Your task to perform on an android device: turn on sleep mode Image 0: 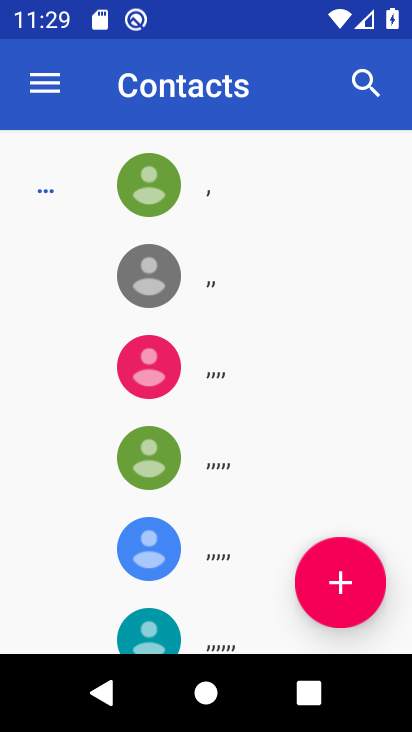
Step 0: press home button
Your task to perform on an android device: turn on sleep mode Image 1: 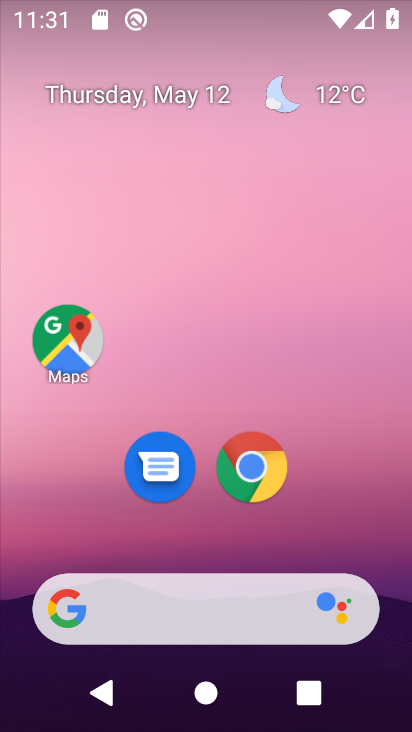
Step 1: drag from (323, 526) to (269, 22)
Your task to perform on an android device: turn on sleep mode Image 2: 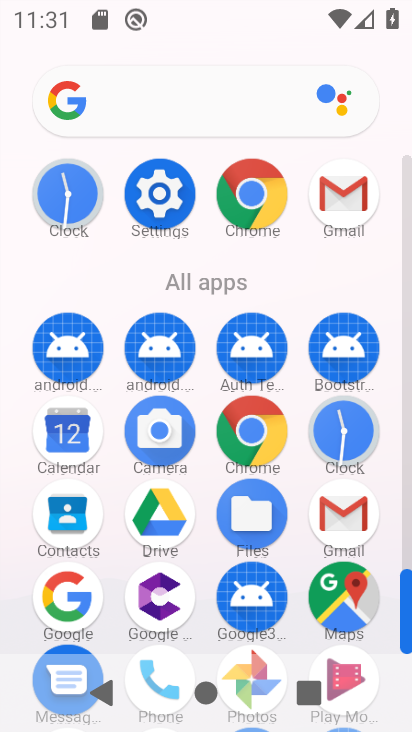
Step 2: click (157, 209)
Your task to perform on an android device: turn on sleep mode Image 3: 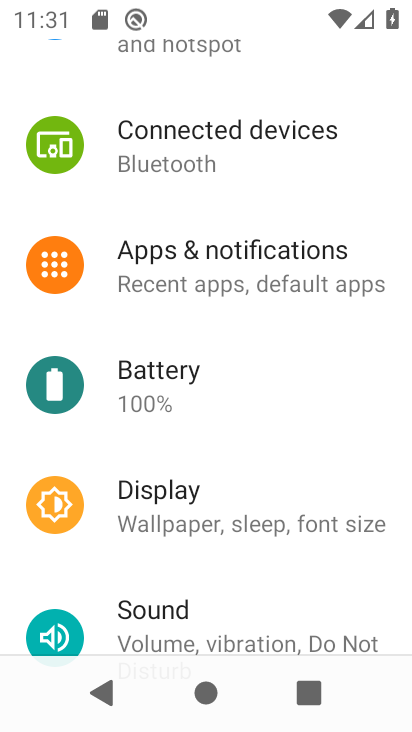
Step 3: click (226, 518)
Your task to perform on an android device: turn on sleep mode Image 4: 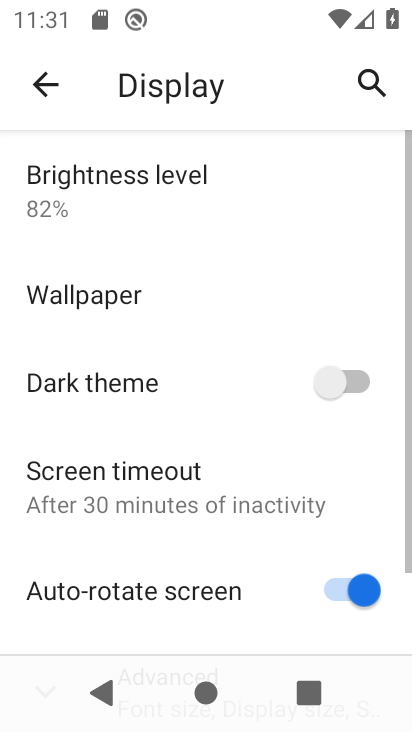
Step 4: task complete